Your task to perform on an android device: search for starred emails in the gmail app Image 0: 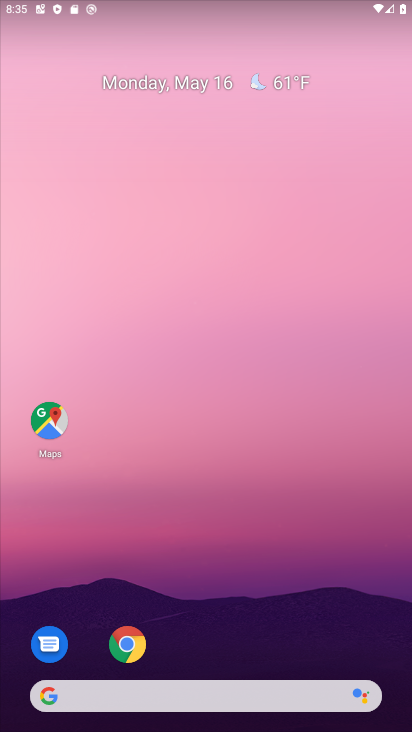
Step 0: drag from (203, 649) to (175, 154)
Your task to perform on an android device: search for starred emails in the gmail app Image 1: 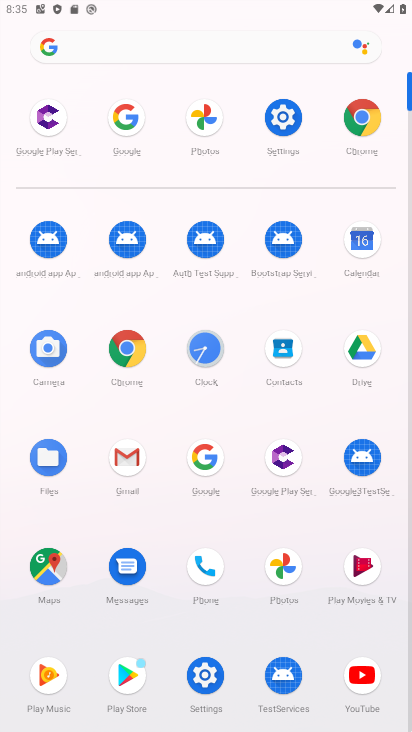
Step 1: click (123, 462)
Your task to perform on an android device: search for starred emails in the gmail app Image 2: 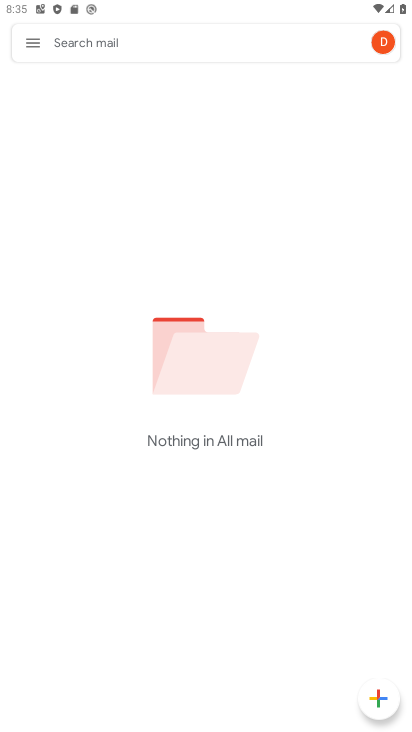
Step 2: click (34, 37)
Your task to perform on an android device: search for starred emails in the gmail app Image 3: 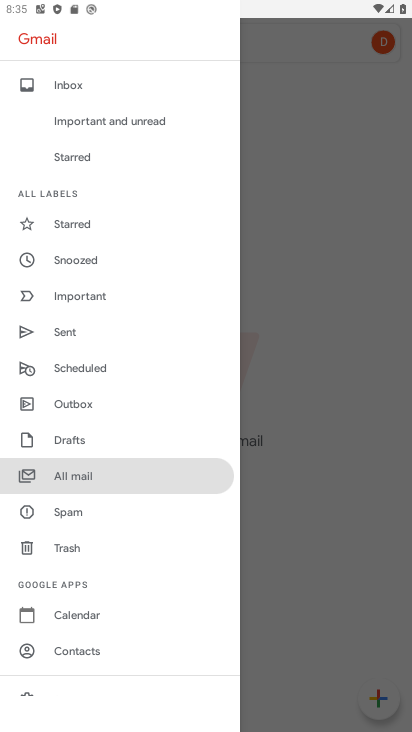
Step 3: click (72, 223)
Your task to perform on an android device: search for starred emails in the gmail app Image 4: 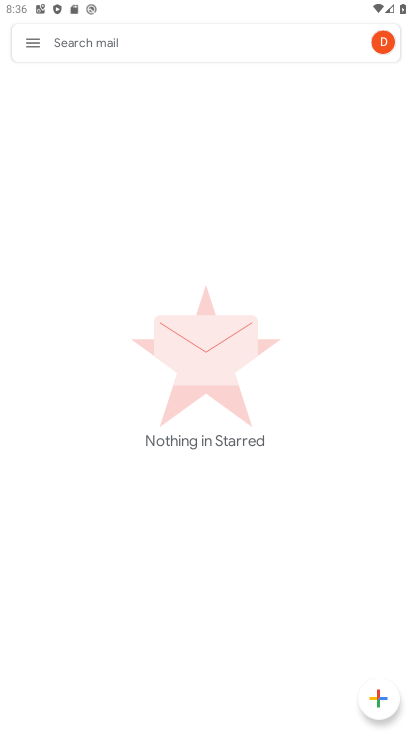
Step 4: task complete